Your task to perform on an android device: turn off wifi Image 0: 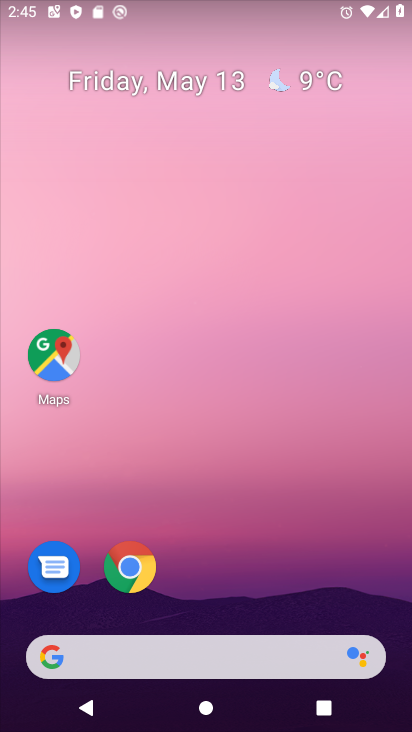
Step 0: drag from (215, 579) to (297, 80)
Your task to perform on an android device: turn off wifi Image 1: 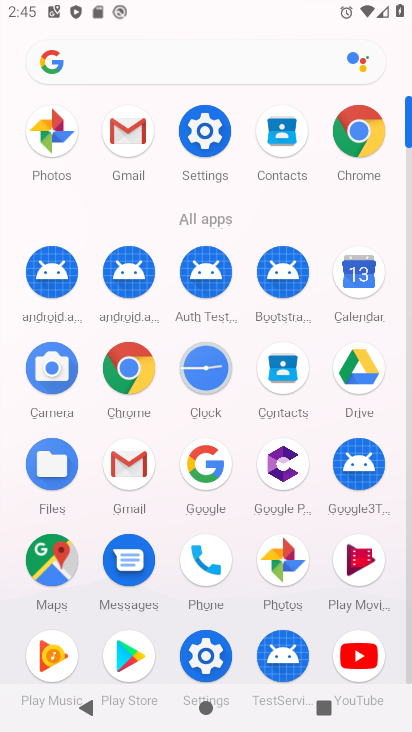
Step 1: click (207, 648)
Your task to perform on an android device: turn off wifi Image 2: 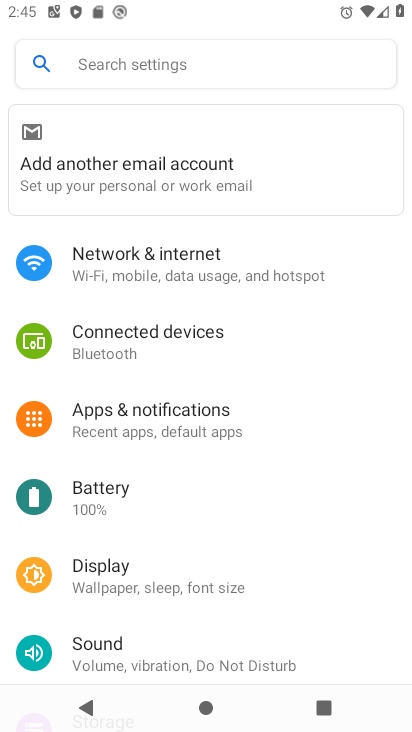
Step 2: click (198, 260)
Your task to perform on an android device: turn off wifi Image 3: 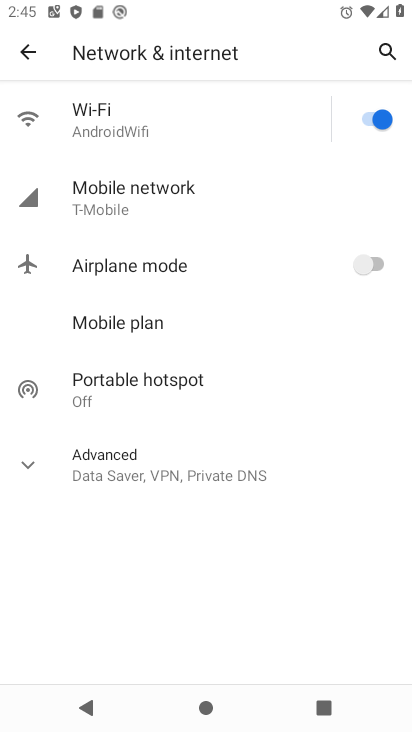
Step 3: click (367, 111)
Your task to perform on an android device: turn off wifi Image 4: 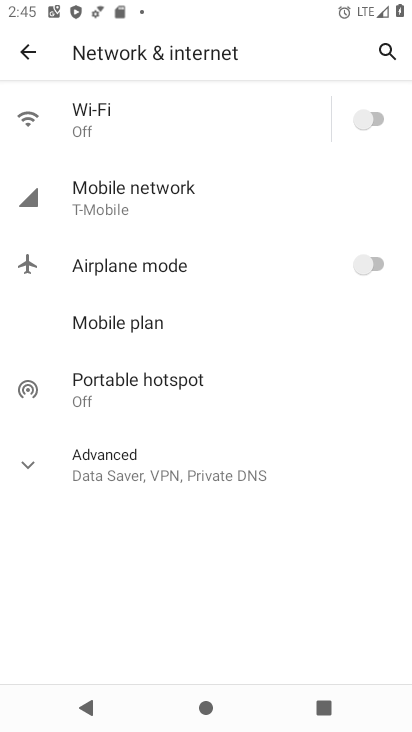
Step 4: task complete